Your task to perform on an android device: Play the last video I watched on Youtube Image 0: 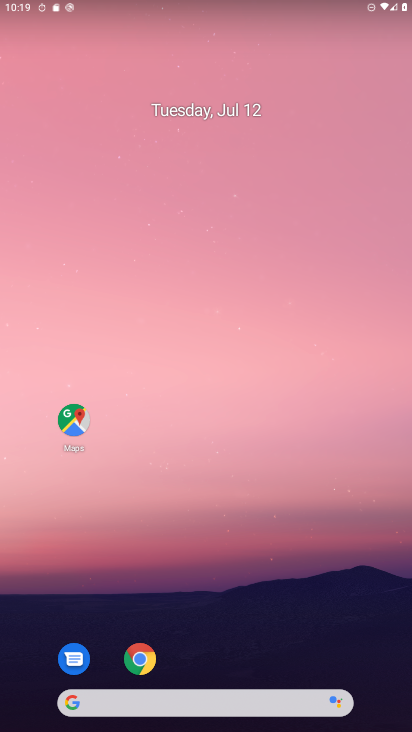
Step 0: drag from (210, 708) to (205, 288)
Your task to perform on an android device: Play the last video I watched on Youtube Image 1: 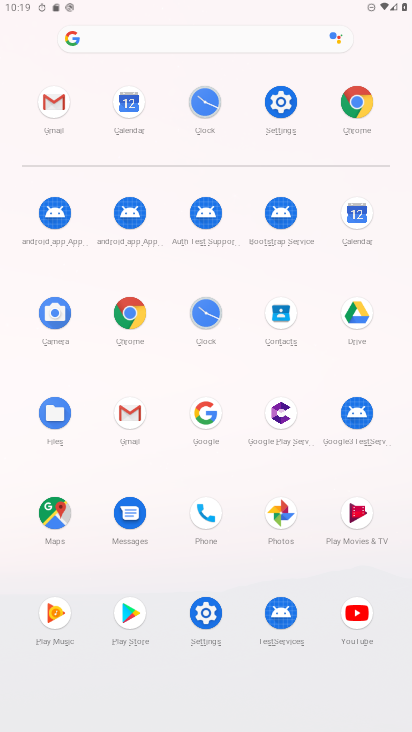
Step 1: click (355, 615)
Your task to perform on an android device: Play the last video I watched on Youtube Image 2: 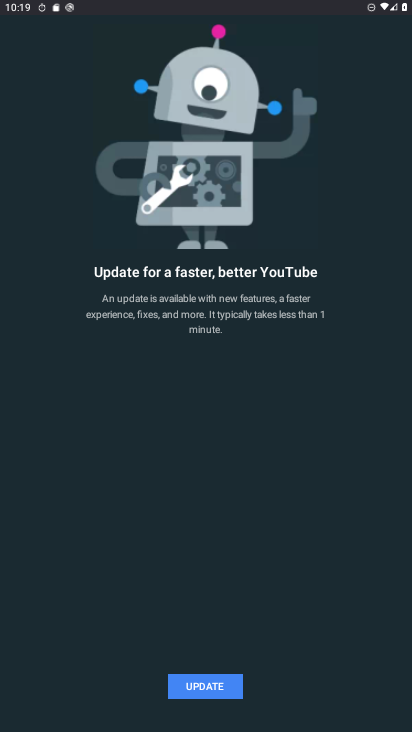
Step 2: task complete